Your task to perform on an android device: Check the news Image 0: 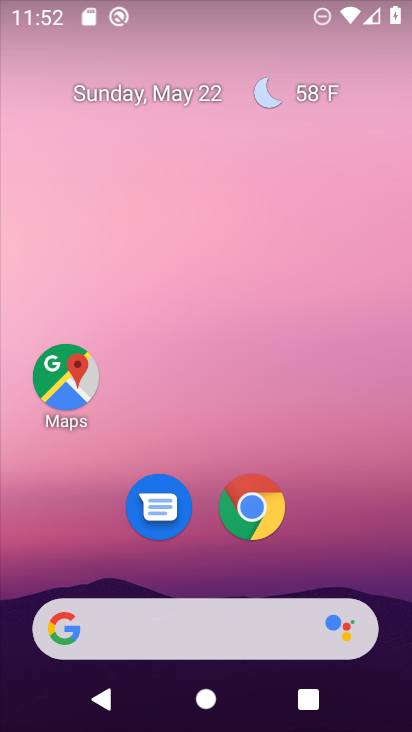
Step 0: click (245, 632)
Your task to perform on an android device: Check the news Image 1: 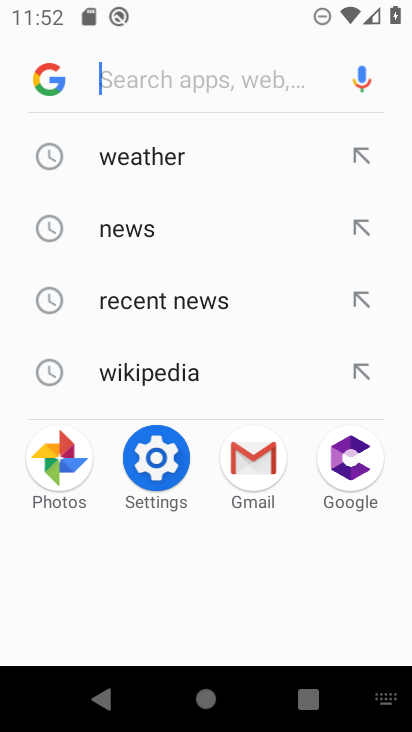
Step 1: click (157, 224)
Your task to perform on an android device: Check the news Image 2: 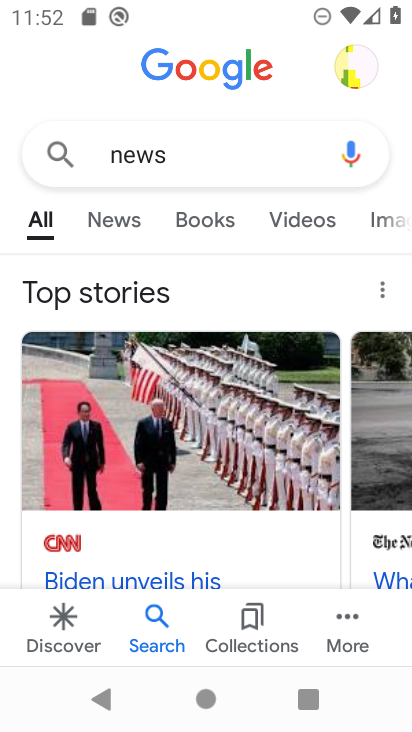
Step 2: task complete